Your task to perform on an android device: star an email in the gmail app Image 0: 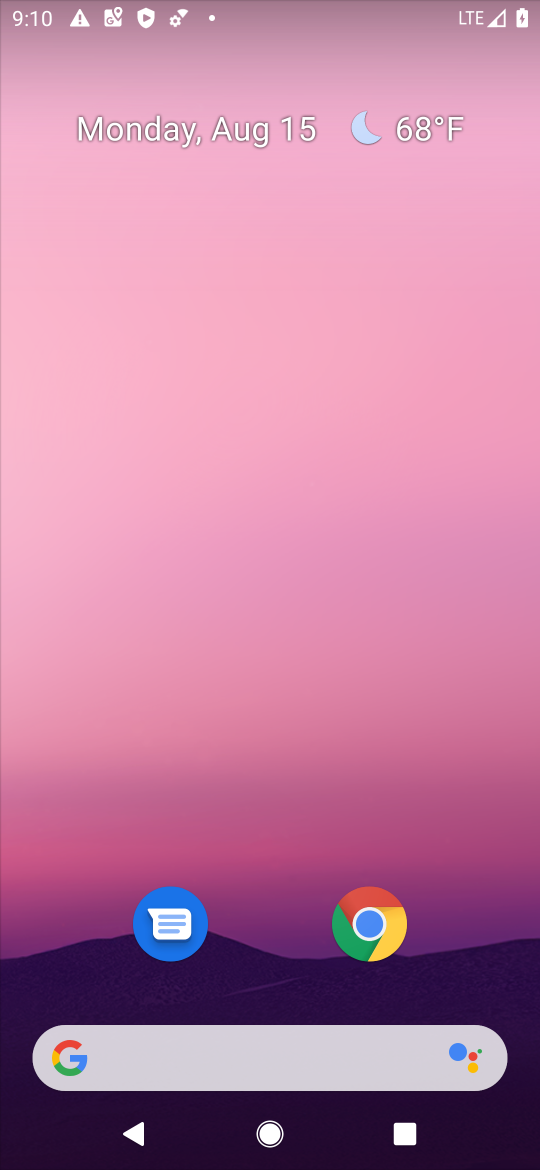
Step 0: drag from (511, 973) to (491, 143)
Your task to perform on an android device: star an email in the gmail app Image 1: 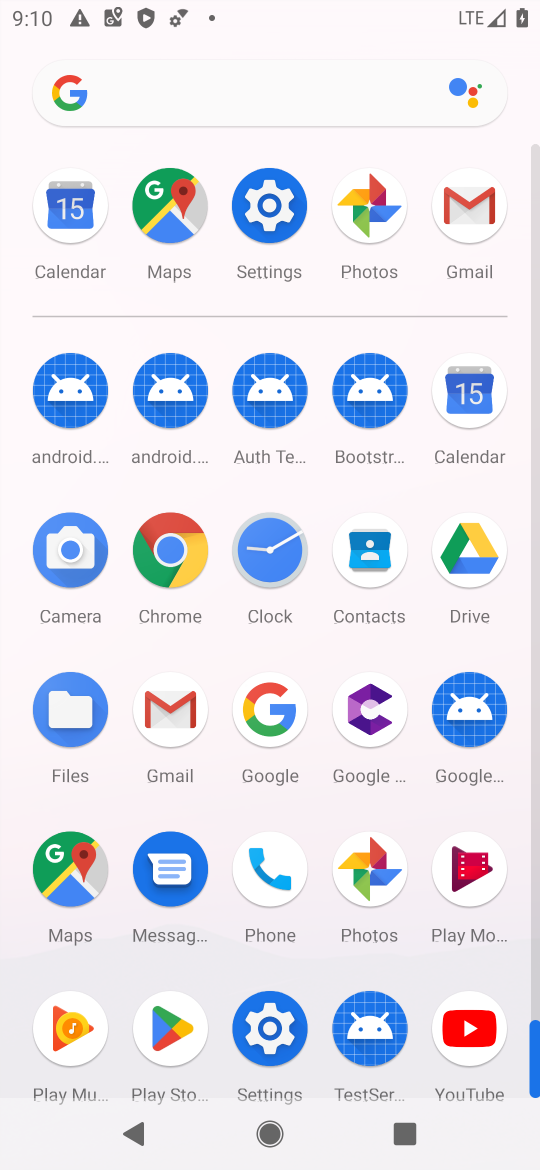
Step 1: click (168, 709)
Your task to perform on an android device: star an email in the gmail app Image 2: 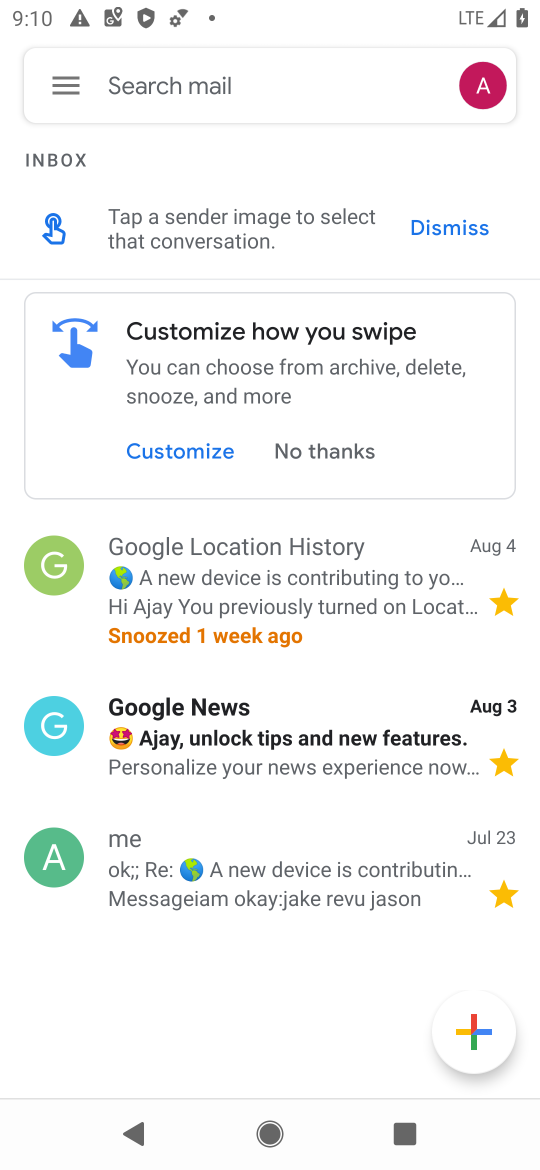
Step 2: task complete